Your task to perform on an android device: turn off javascript in the chrome app Image 0: 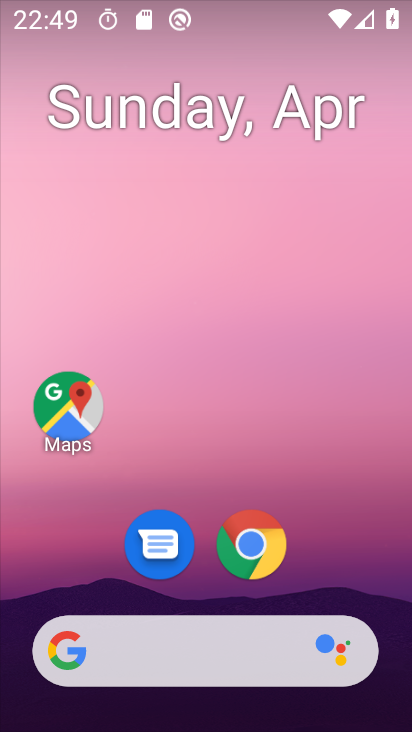
Step 0: drag from (316, 475) to (312, 218)
Your task to perform on an android device: turn off javascript in the chrome app Image 1: 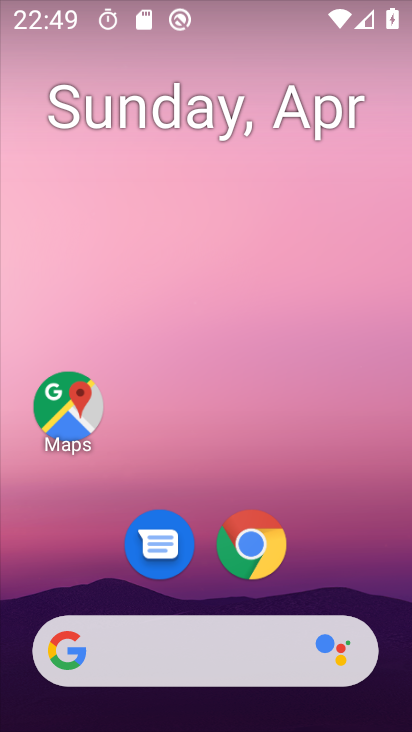
Step 1: drag from (340, 553) to (349, 173)
Your task to perform on an android device: turn off javascript in the chrome app Image 2: 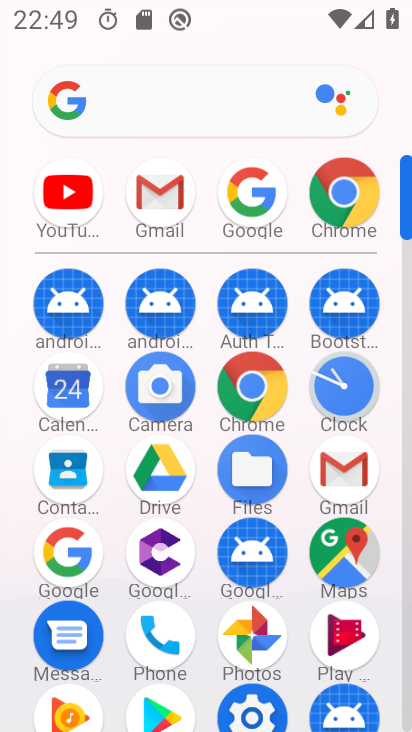
Step 2: click (254, 381)
Your task to perform on an android device: turn off javascript in the chrome app Image 3: 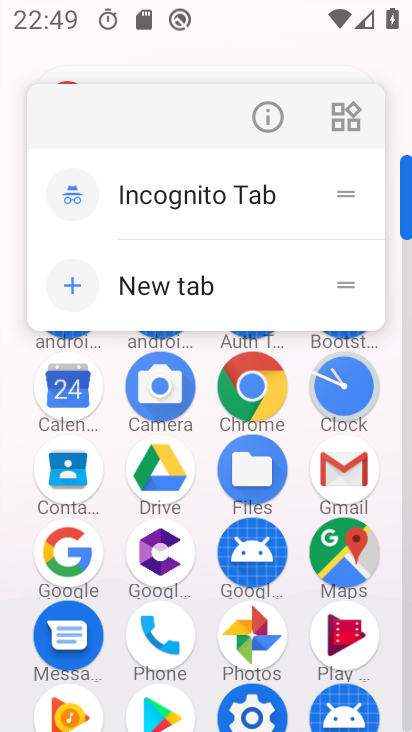
Step 3: click (254, 381)
Your task to perform on an android device: turn off javascript in the chrome app Image 4: 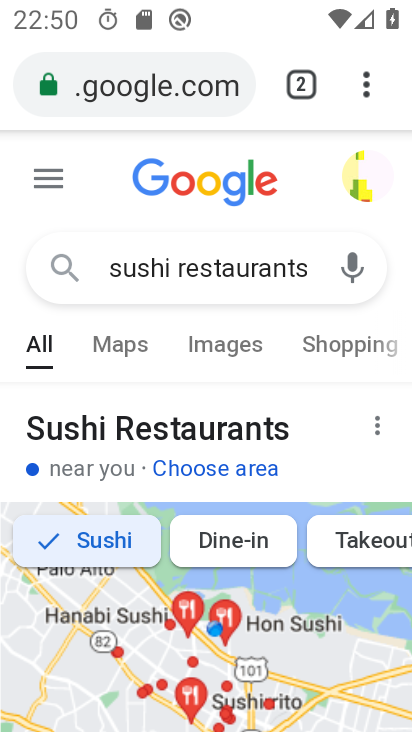
Step 4: click (365, 81)
Your task to perform on an android device: turn off javascript in the chrome app Image 5: 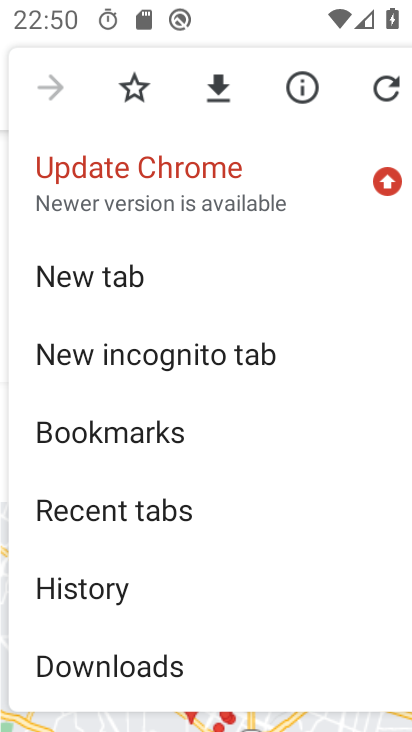
Step 5: drag from (199, 607) to (239, 193)
Your task to perform on an android device: turn off javascript in the chrome app Image 6: 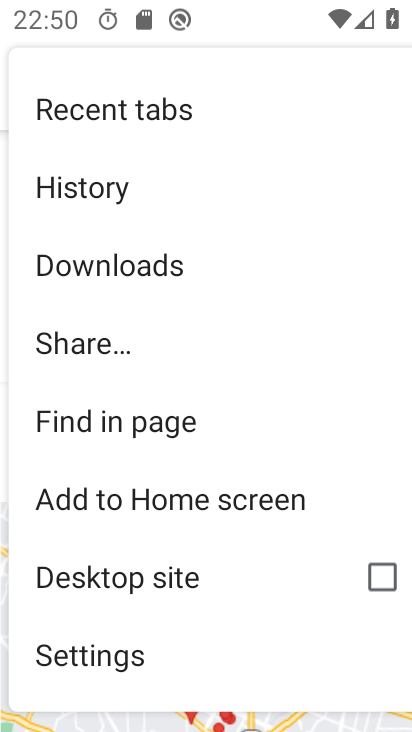
Step 6: click (126, 650)
Your task to perform on an android device: turn off javascript in the chrome app Image 7: 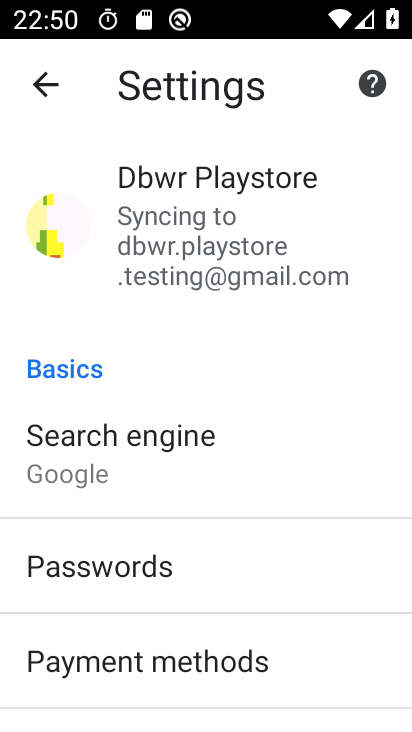
Step 7: drag from (276, 619) to (310, 151)
Your task to perform on an android device: turn off javascript in the chrome app Image 8: 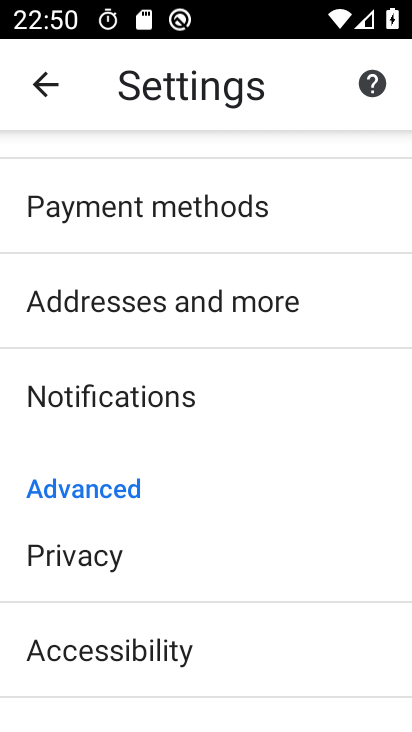
Step 8: drag from (251, 600) to (318, 179)
Your task to perform on an android device: turn off javascript in the chrome app Image 9: 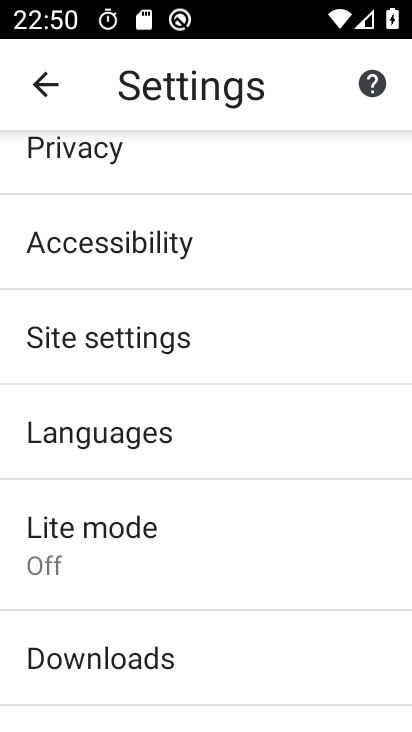
Step 9: drag from (218, 648) to (220, 494)
Your task to perform on an android device: turn off javascript in the chrome app Image 10: 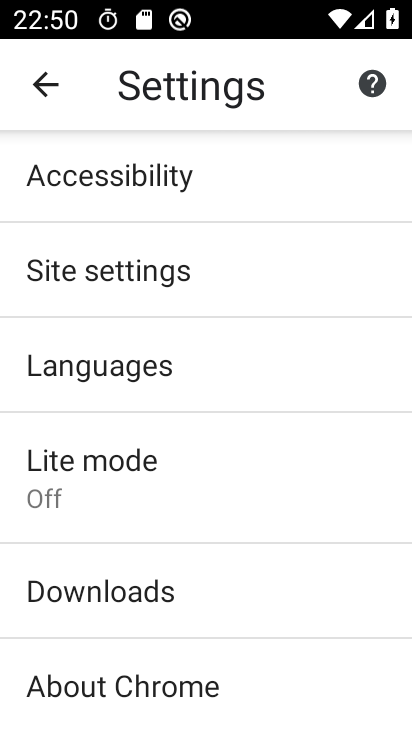
Step 10: click (212, 275)
Your task to perform on an android device: turn off javascript in the chrome app Image 11: 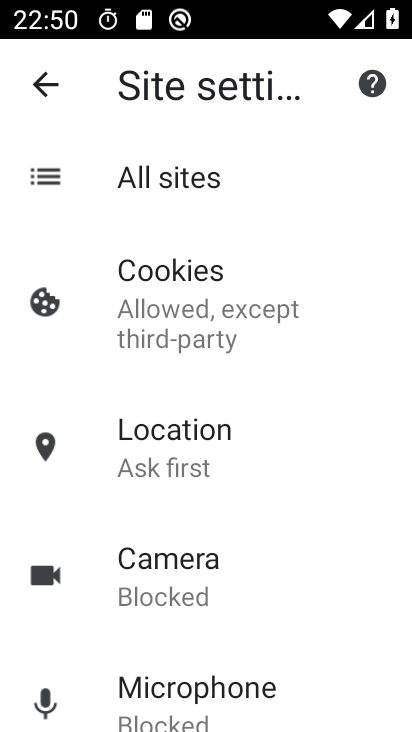
Step 11: drag from (228, 630) to (255, 224)
Your task to perform on an android device: turn off javascript in the chrome app Image 12: 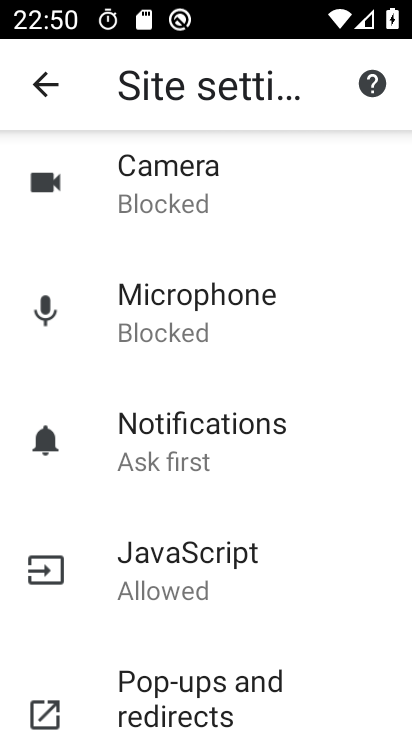
Step 12: click (215, 565)
Your task to perform on an android device: turn off javascript in the chrome app Image 13: 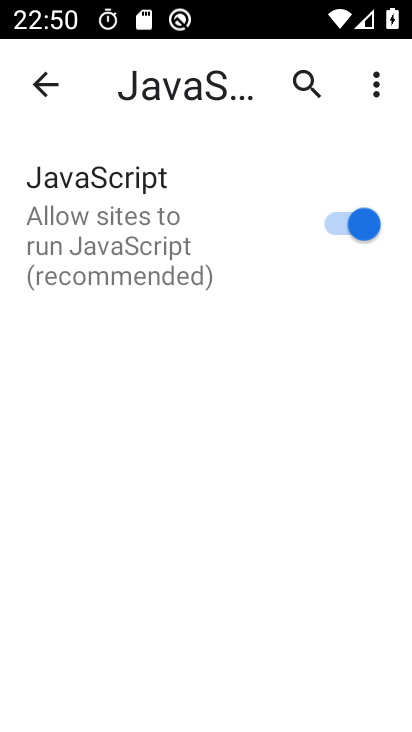
Step 13: click (339, 209)
Your task to perform on an android device: turn off javascript in the chrome app Image 14: 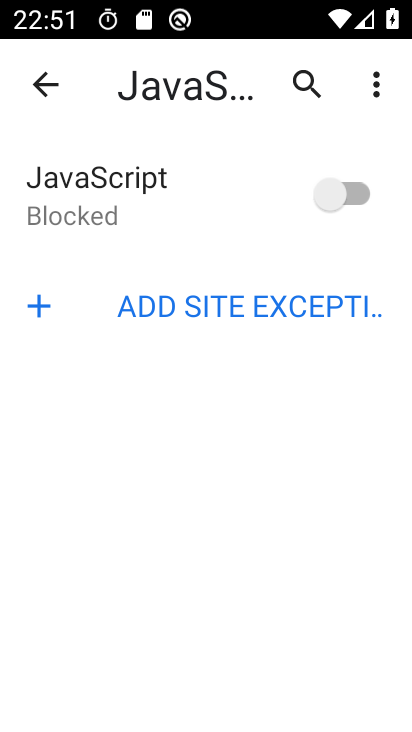
Step 14: task complete